Your task to perform on an android device: toggle wifi Image 0: 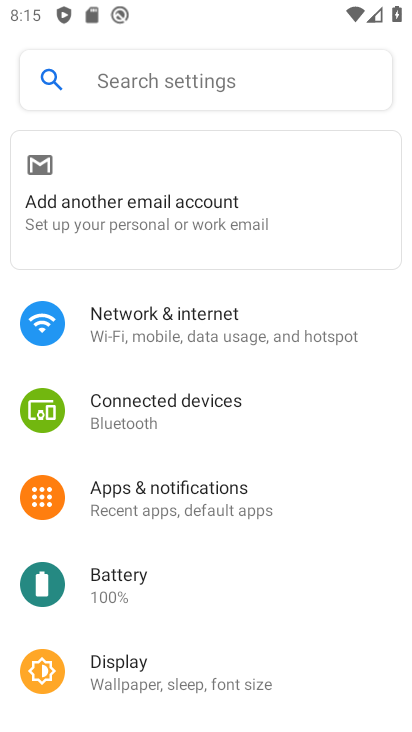
Step 0: drag from (369, 535) to (375, 421)
Your task to perform on an android device: toggle wifi Image 1: 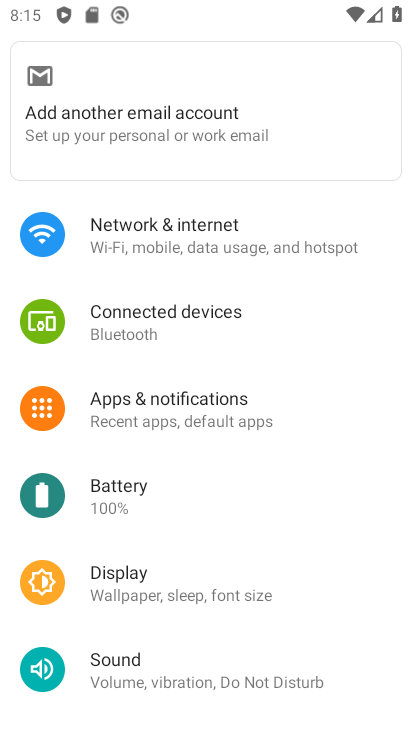
Step 1: drag from (356, 581) to (355, 477)
Your task to perform on an android device: toggle wifi Image 2: 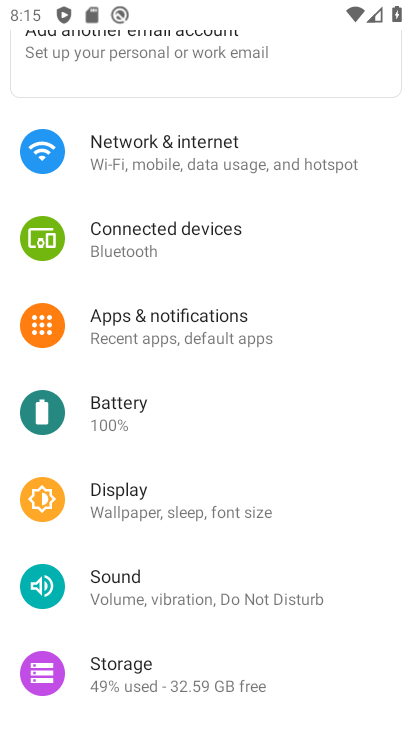
Step 2: drag from (341, 624) to (352, 485)
Your task to perform on an android device: toggle wifi Image 3: 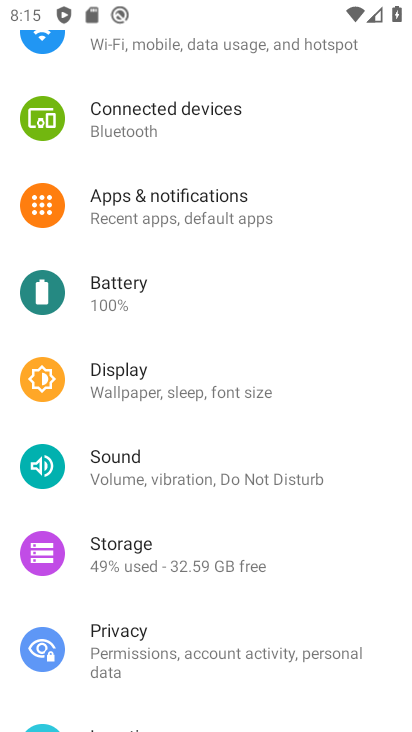
Step 3: drag from (368, 583) to (367, 437)
Your task to perform on an android device: toggle wifi Image 4: 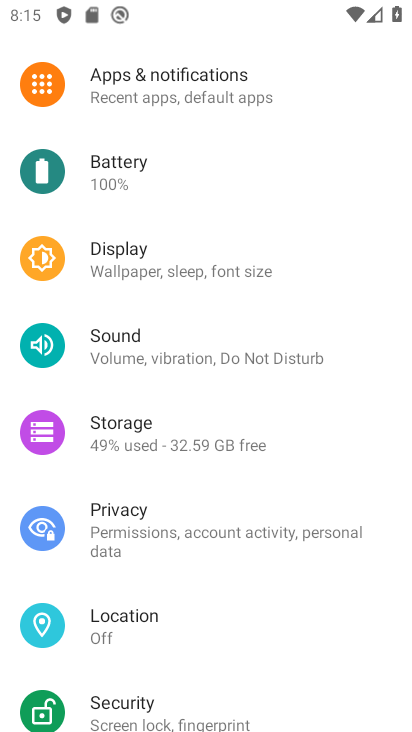
Step 4: drag from (358, 630) to (376, 474)
Your task to perform on an android device: toggle wifi Image 5: 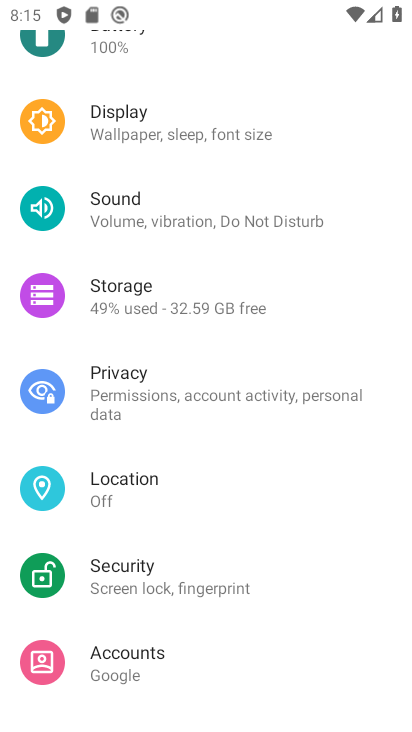
Step 5: drag from (372, 457) to (384, 594)
Your task to perform on an android device: toggle wifi Image 6: 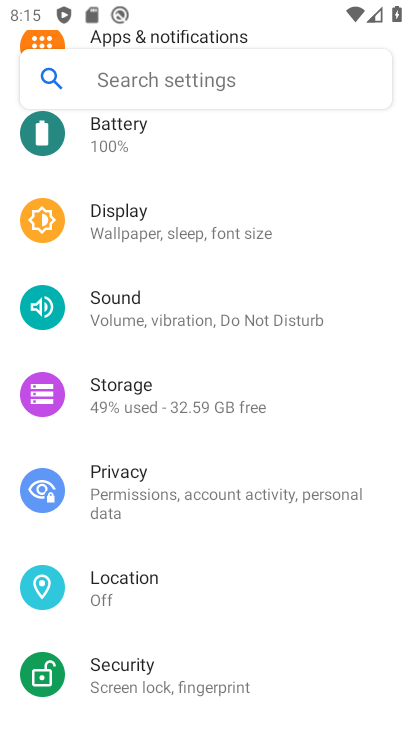
Step 6: drag from (388, 403) to (382, 555)
Your task to perform on an android device: toggle wifi Image 7: 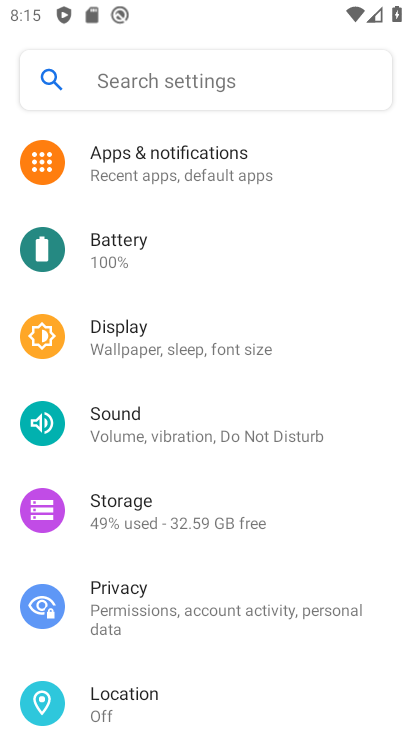
Step 7: drag from (379, 354) to (365, 522)
Your task to perform on an android device: toggle wifi Image 8: 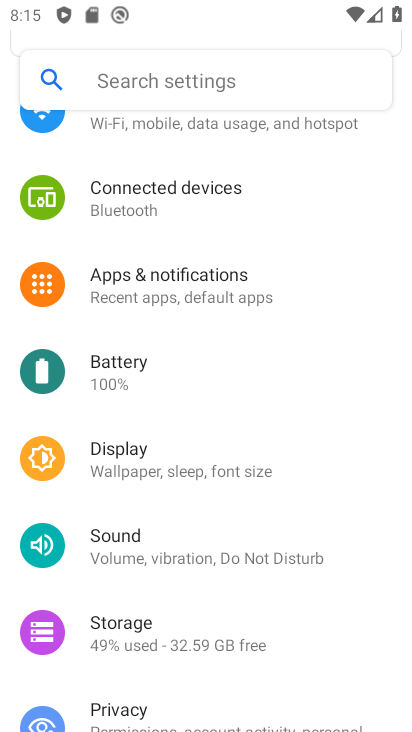
Step 8: drag from (366, 328) to (367, 487)
Your task to perform on an android device: toggle wifi Image 9: 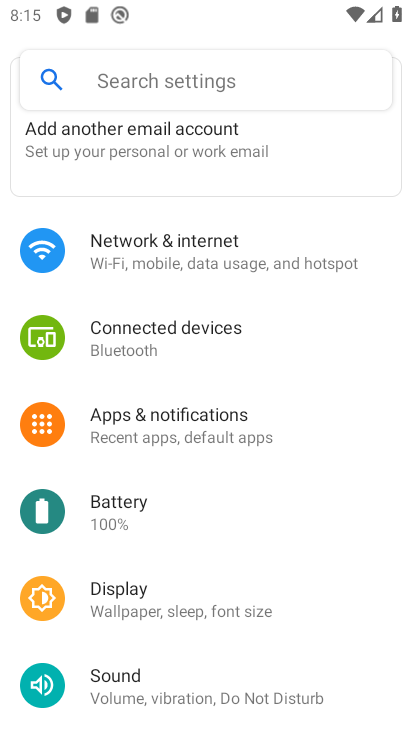
Step 9: click (269, 259)
Your task to perform on an android device: toggle wifi Image 10: 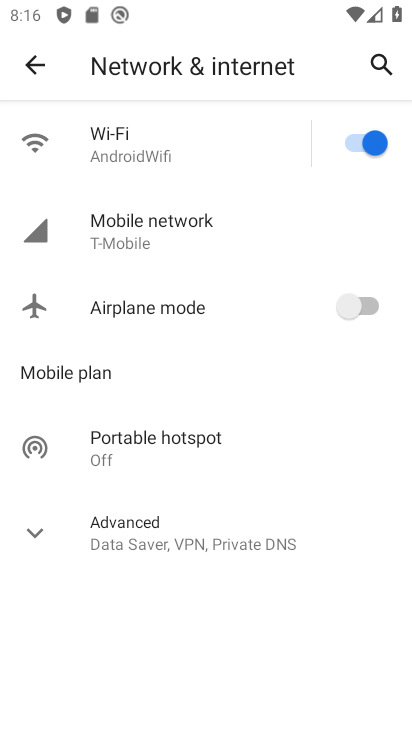
Step 10: click (361, 143)
Your task to perform on an android device: toggle wifi Image 11: 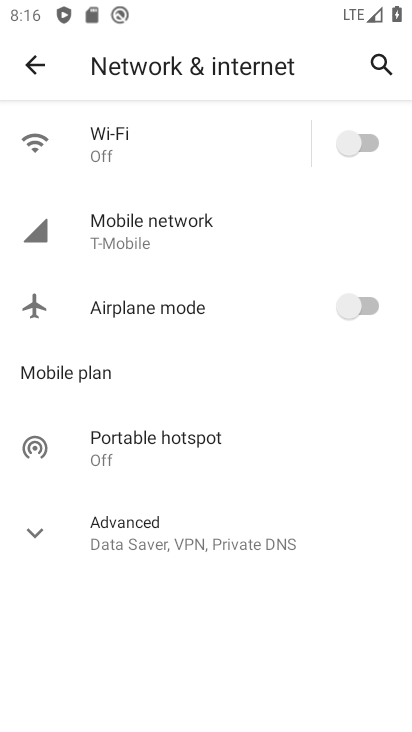
Step 11: task complete